Your task to perform on an android device: turn off translation in the chrome app Image 0: 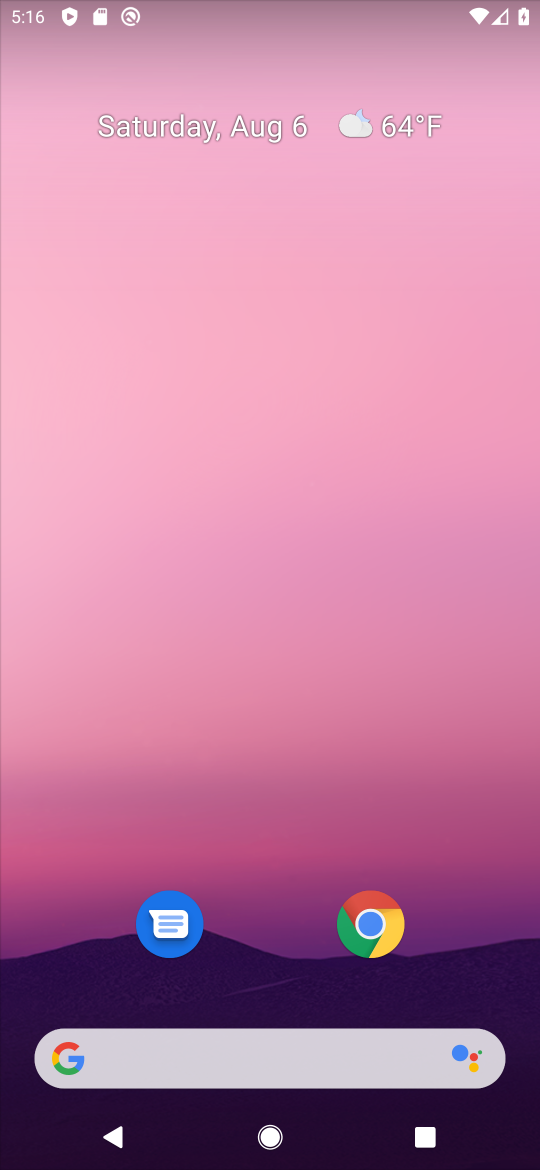
Step 0: click (366, 917)
Your task to perform on an android device: turn off translation in the chrome app Image 1: 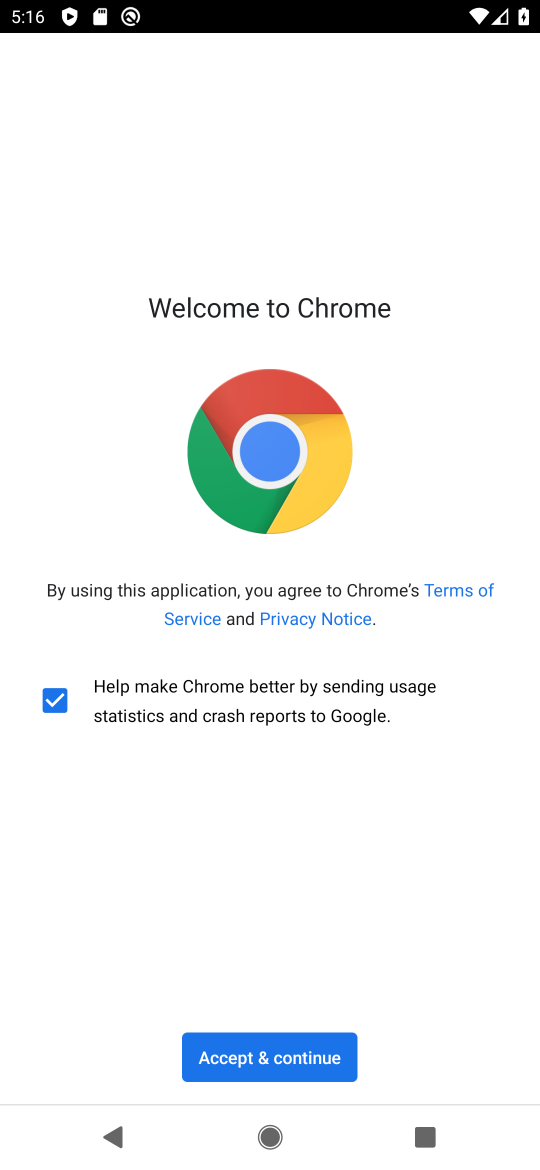
Step 1: click (267, 1045)
Your task to perform on an android device: turn off translation in the chrome app Image 2: 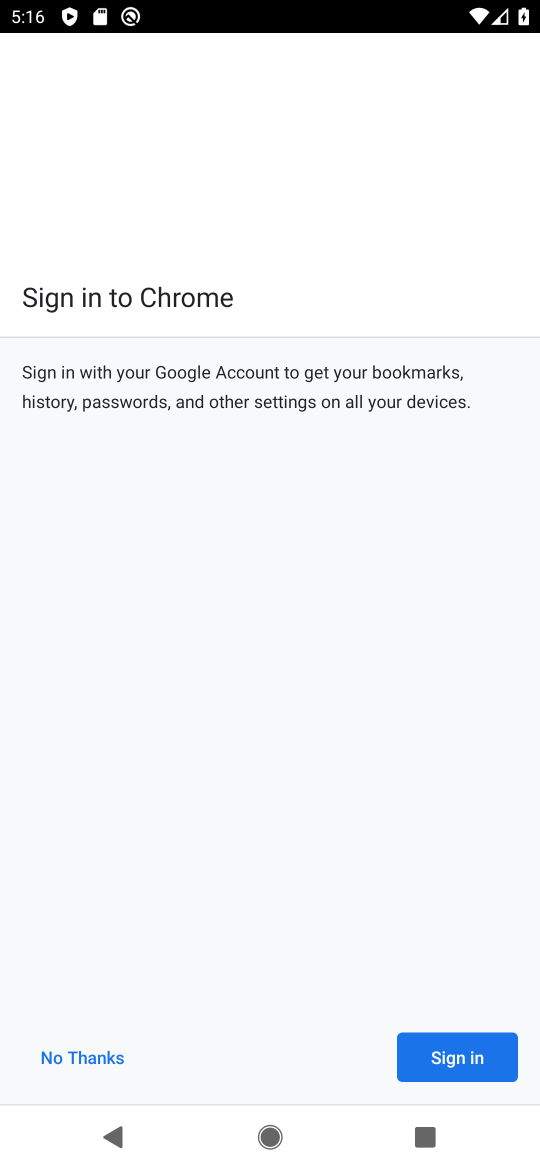
Step 2: click (102, 1046)
Your task to perform on an android device: turn off translation in the chrome app Image 3: 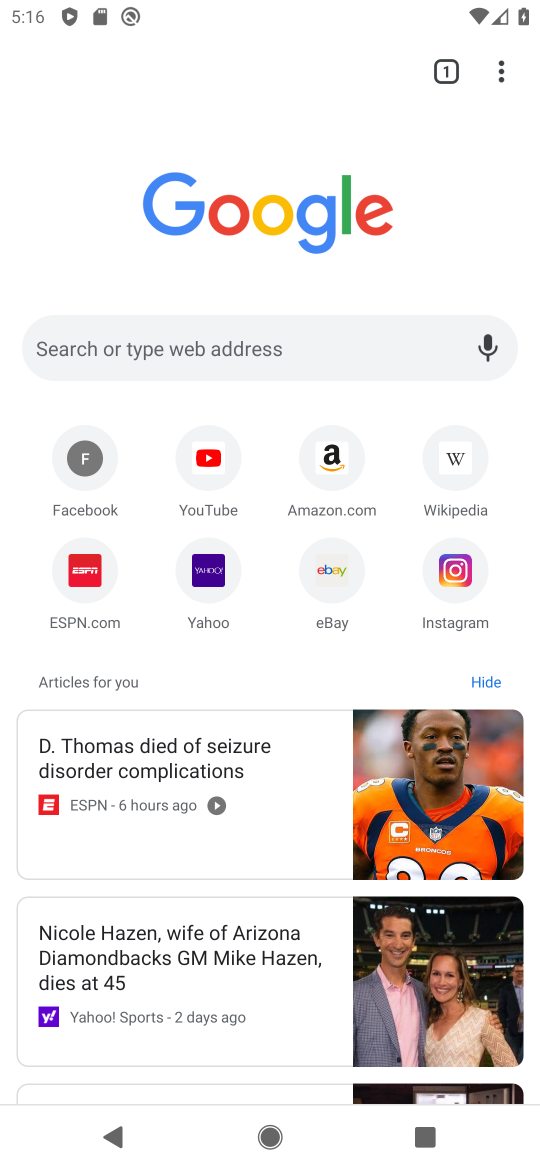
Step 3: click (503, 85)
Your task to perform on an android device: turn off translation in the chrome app Image 4: 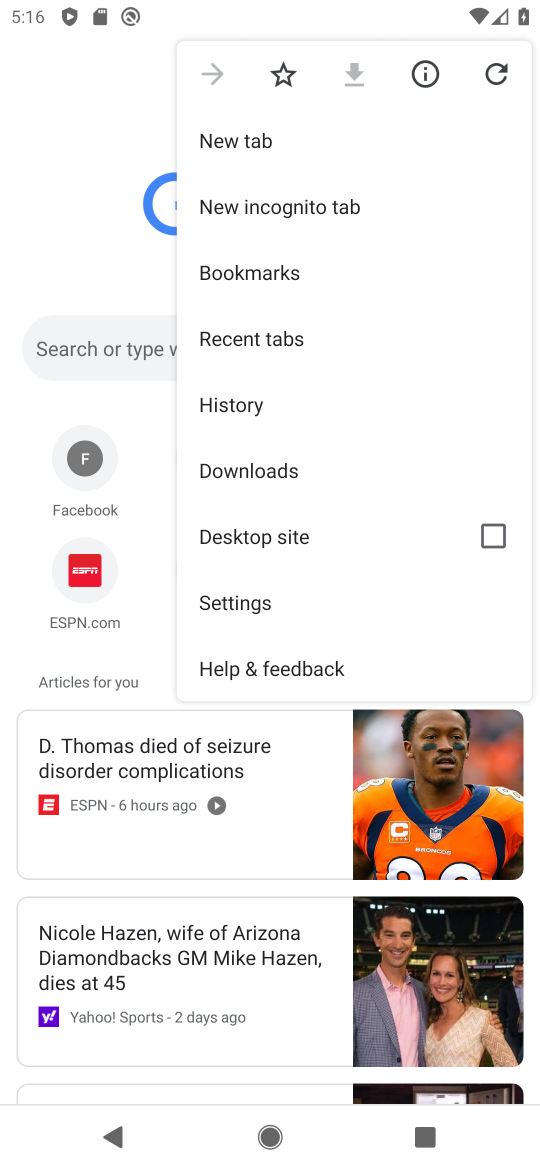
Step 4: click (247, 600)
Your task to perform on an android device: turn off translation in the chrome app Image 5: 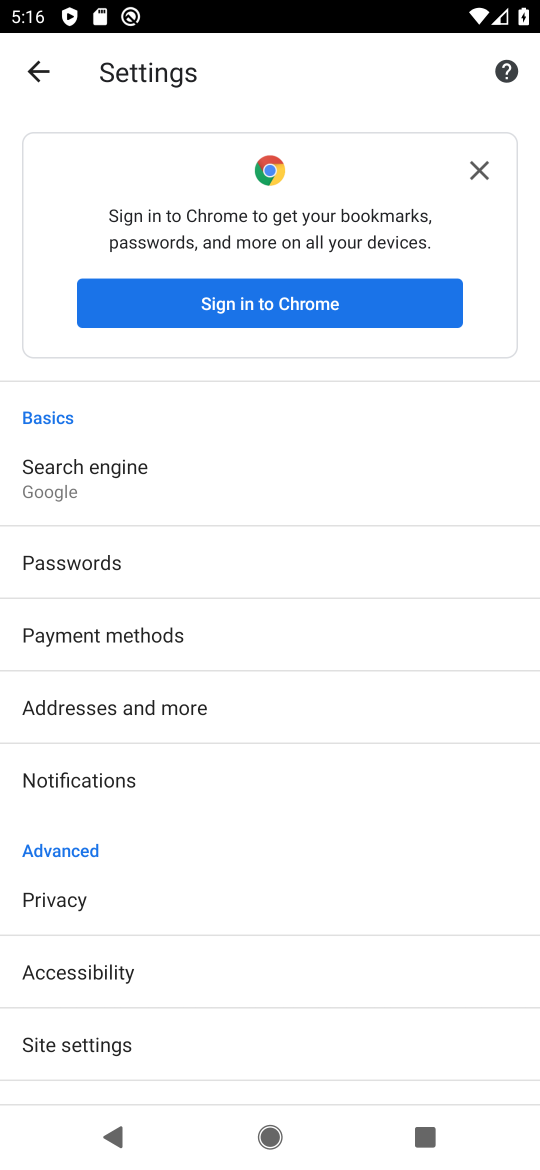
Step 5: drag from (290, 938) to (248, 513)
Your task to perform on an android device: turn off translation in the chrome app Image 6: 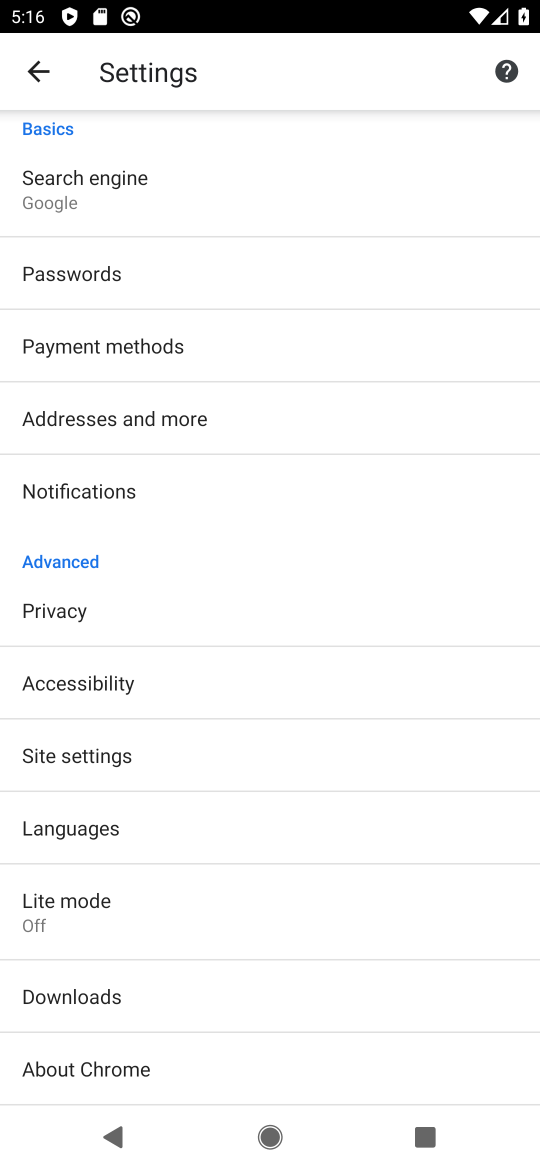
Step 6: click (94, 822)
Your task to perform on an android device: turn off translation in the chrome app Image 7: 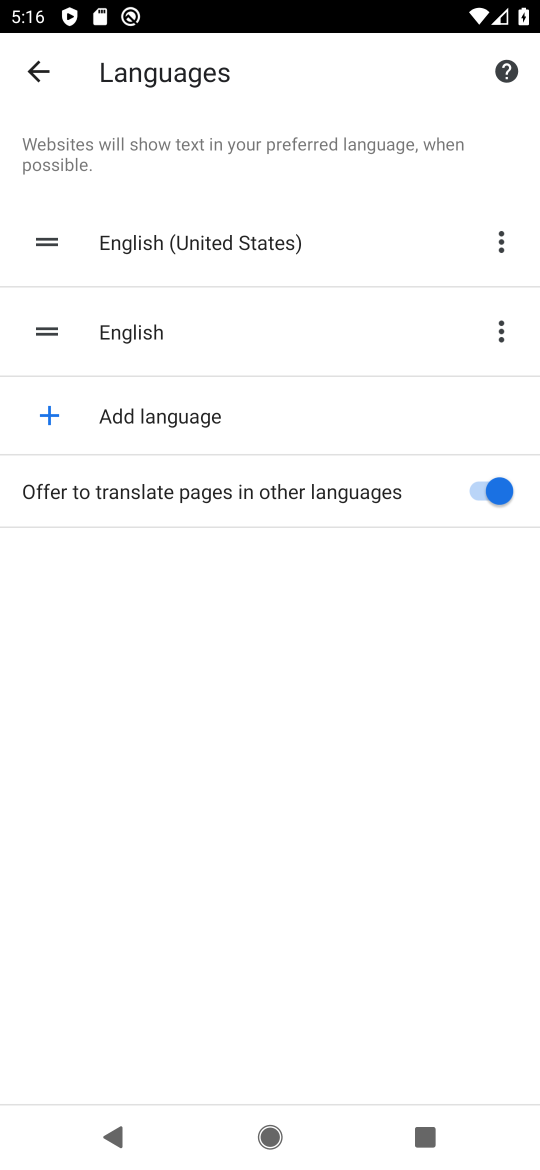
Step 7: click (508, 488)
Your task to perform on an android device: turn off translation in the chrome app Image 8: 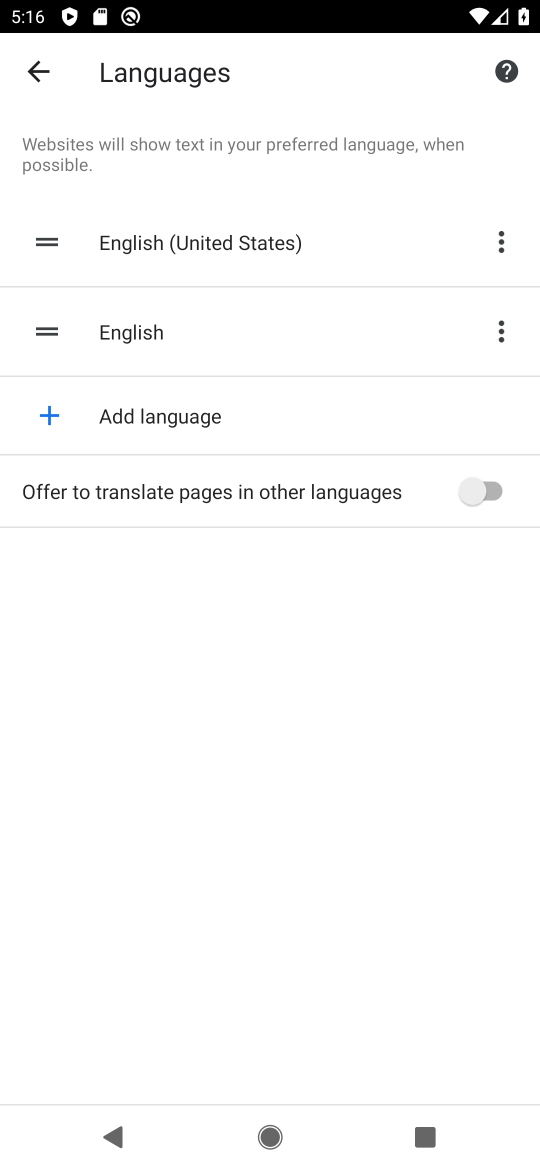
Step 8: task complete